Your task to perform on an android device: Play the latest video from the BBC Image 0: 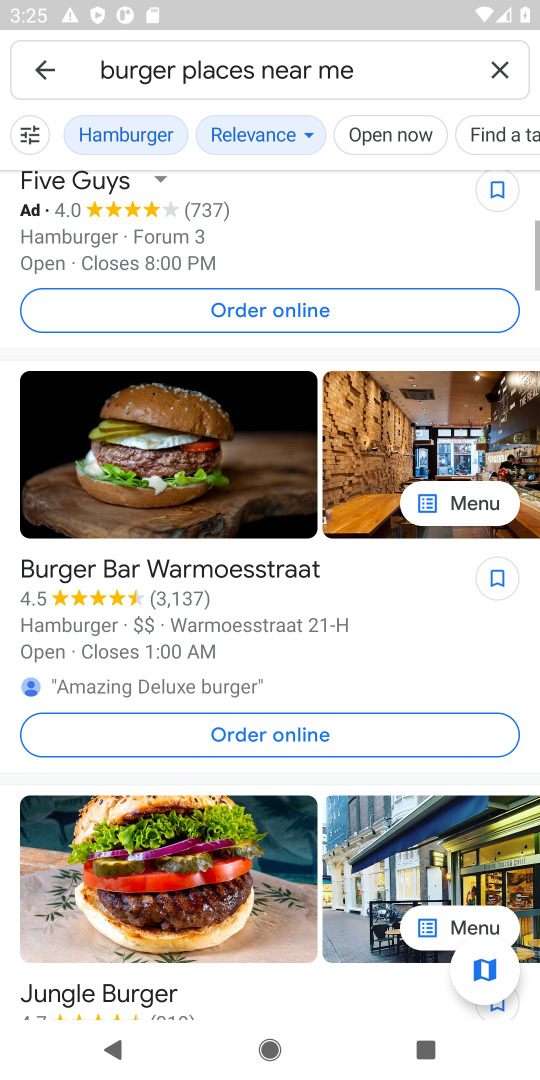
Step 0: press home button
Your task to perform on an android device: Play the latest video from the BBC Image 1: 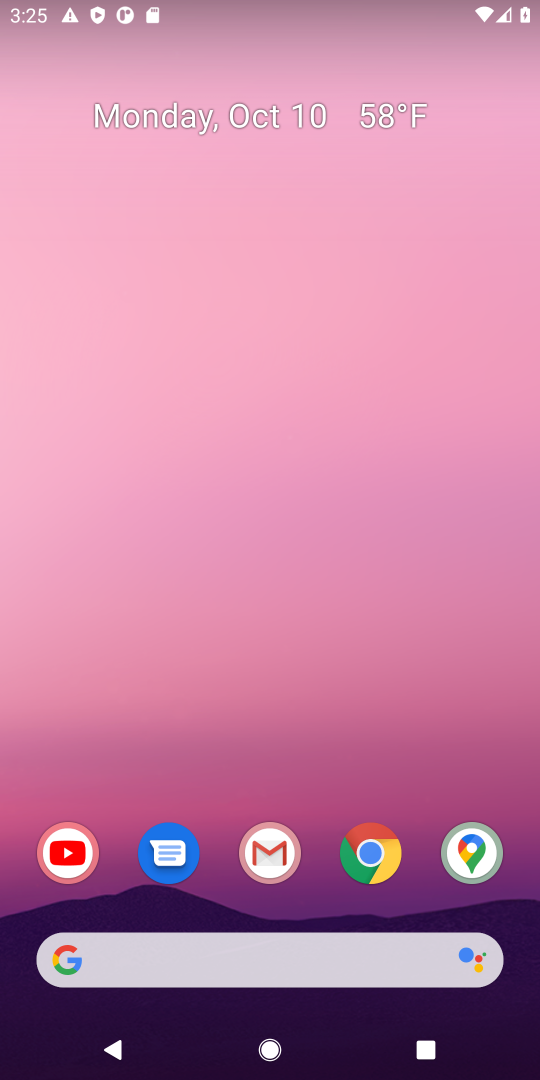
Step 1: click (52, 842)
Your task to perform on an android device: Play the latest video from the BBC Image 2: 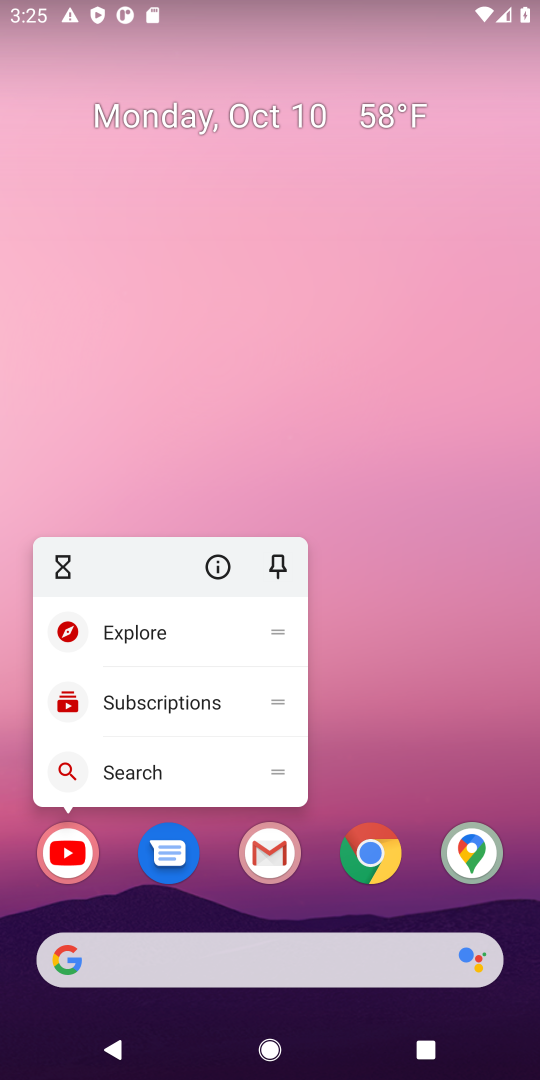
Step 2: click (66, 859)
Your task to perform on an android device: Play the latest video from the BBC Image 3: 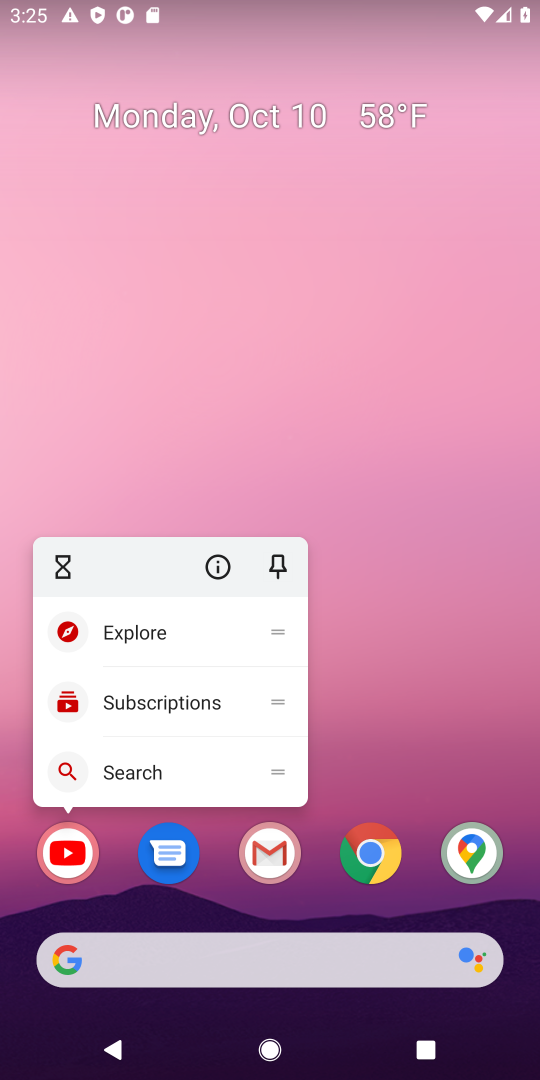
Step 3: click (95, 869)
Your task to perform on an android device: Play the latest video from the BBC Image 4: 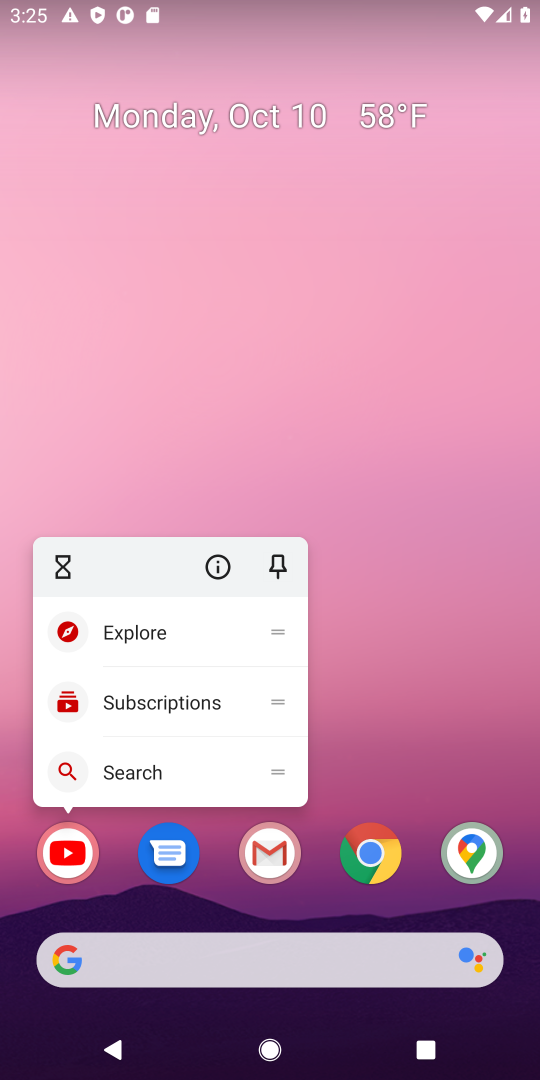
Step 4: click (60, 844)
Your task to perform on an android device: Play the latest video from the BBC Image 5: 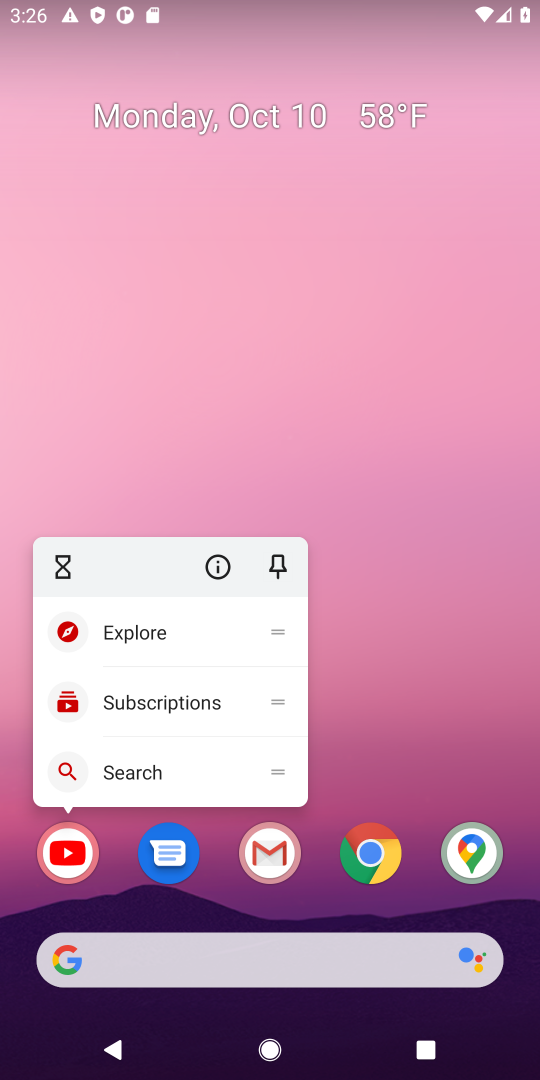
Step 5: click (70, 860)
Your task to perform on an android device: Play the latest video from the BBC Image 6: 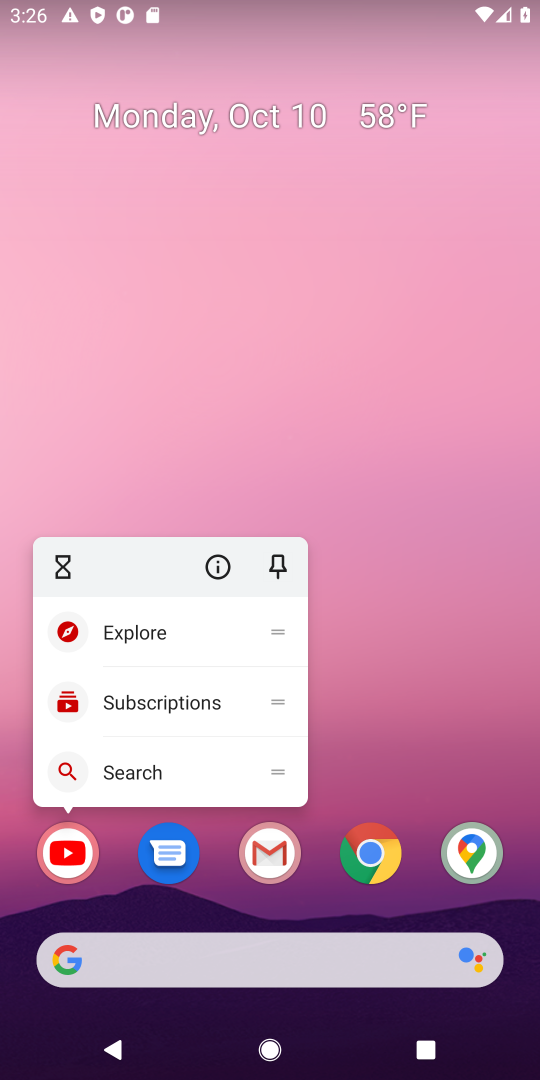
Step 6: click (70, 857)
Your task to perform on an android device: Play the latest video from the BBC Image 7: 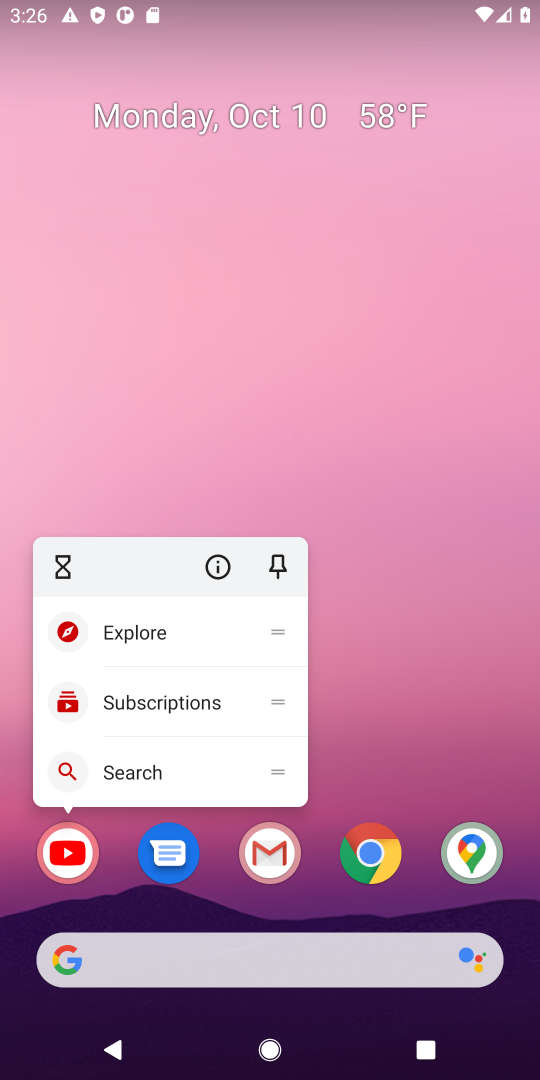
Step 7: click (70, 857)
Your task to perform on an android device: Play the latest video from the BBC Image 8: 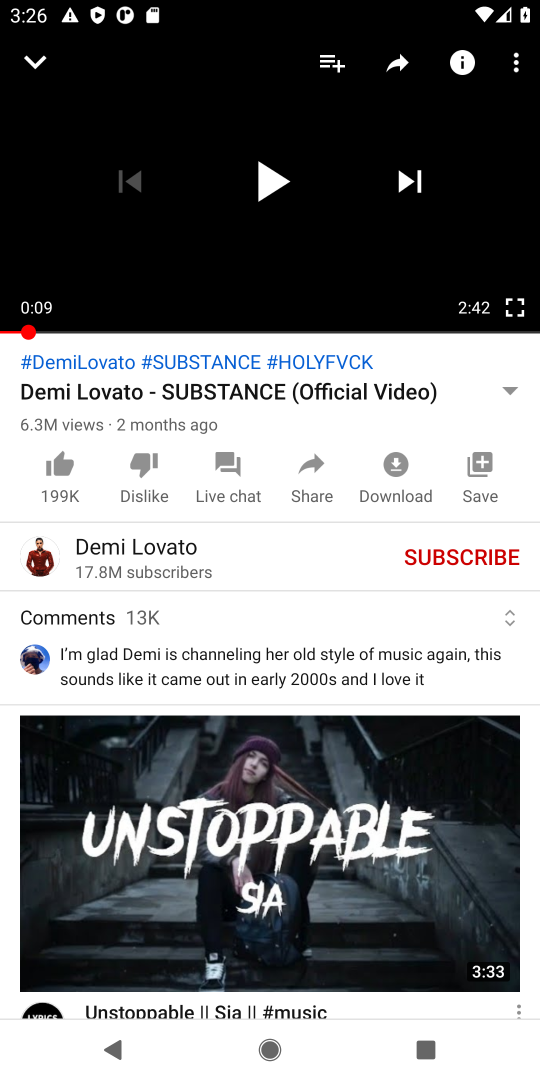
Step 8: click (37, 59)
Your task to perform on an android device: Play the latest video from the BBC Image 9: 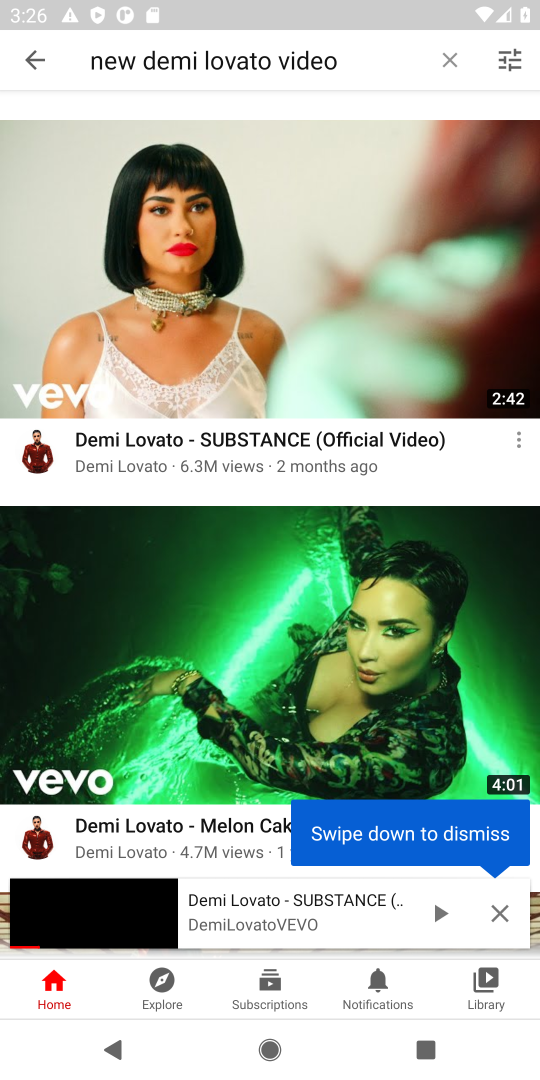
Step 9: click (428, 69)
Your task to perform on an android device: Play the latest video from the BBC Image 10: 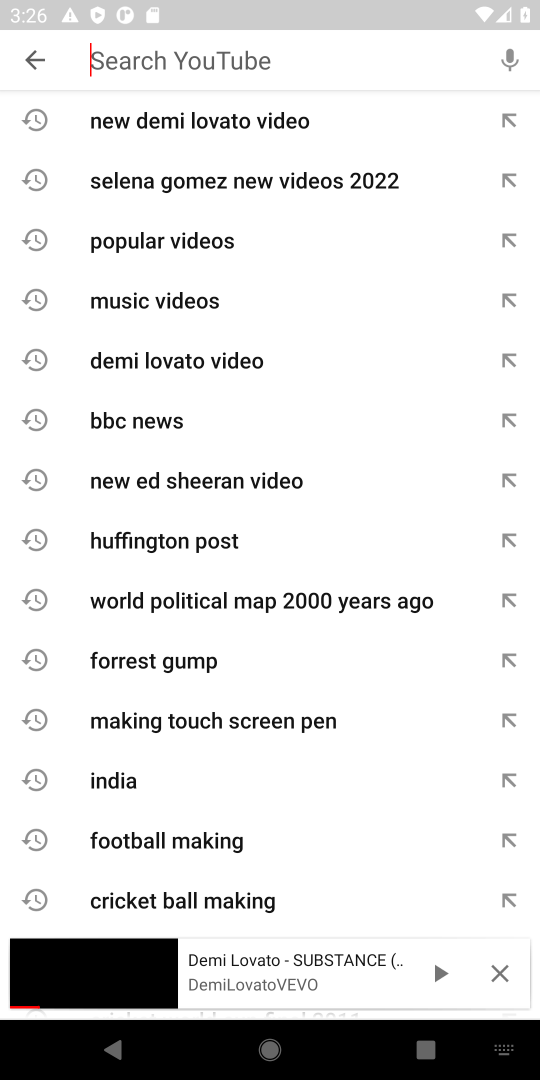
Step 10: click (197, 55)
Your task to perform on an android device: Play the latest video from the BBC Image 11: 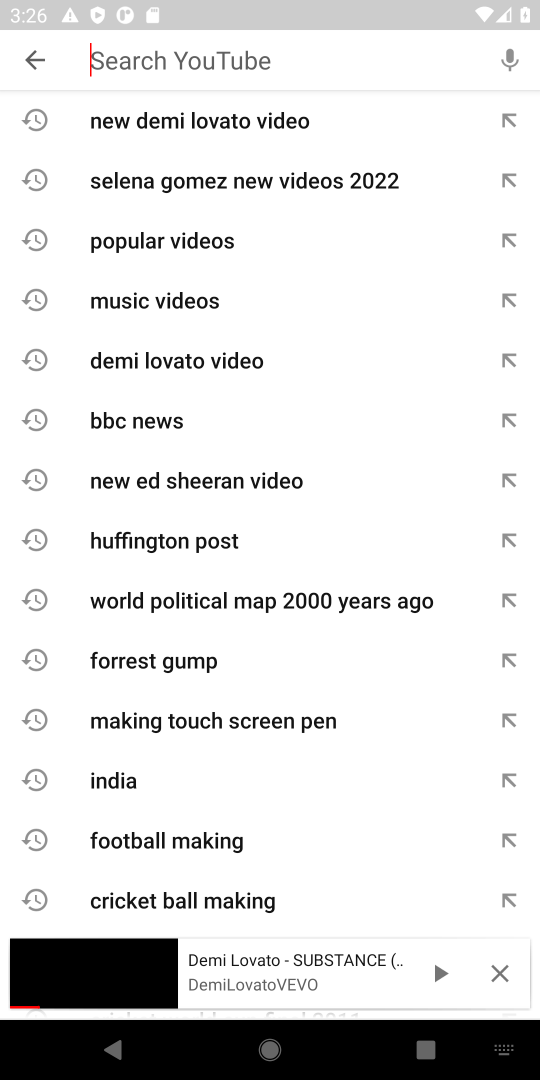
Step 11: type "latest video from the BBC"
Your task to perform on an android device: Play the latest video from the BBC Image 12: 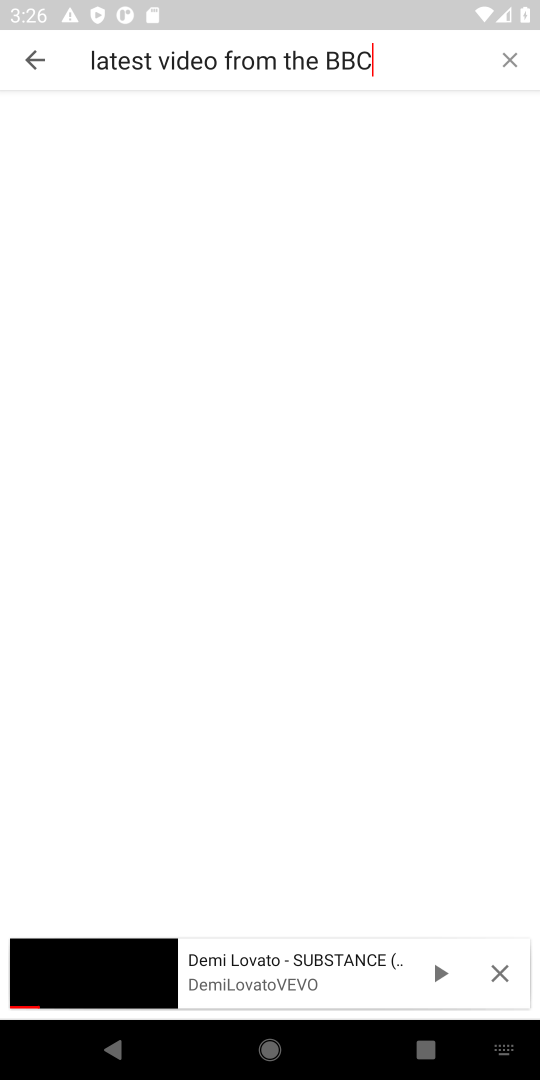
Step 12: click (523, 50)
Your task to perform on an android device: Play the latest video from the BBC Image 13: 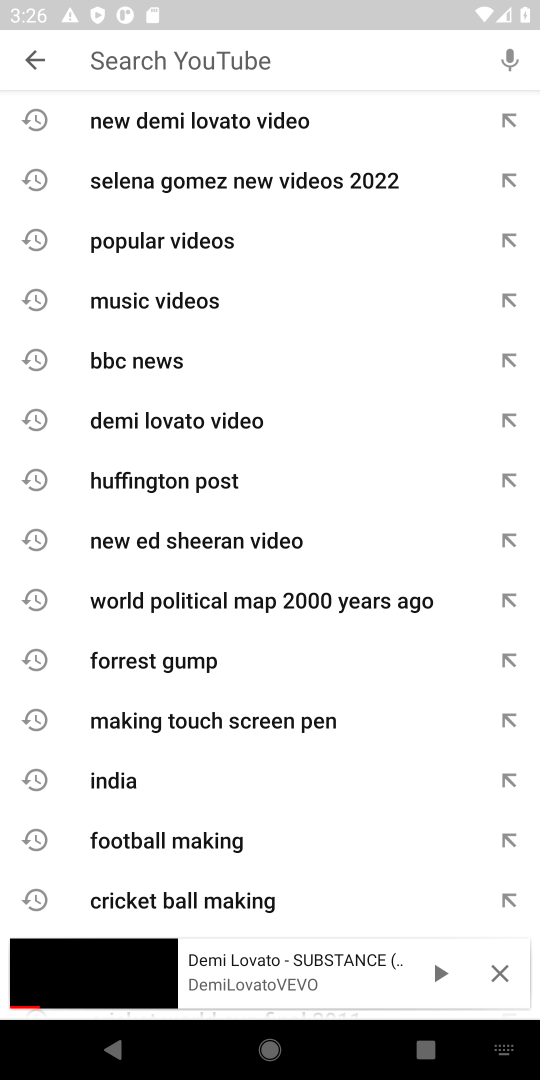
Step 13: type "bbc"
Your task to perform on an android device: Play the latest video from the BBC Image 14: 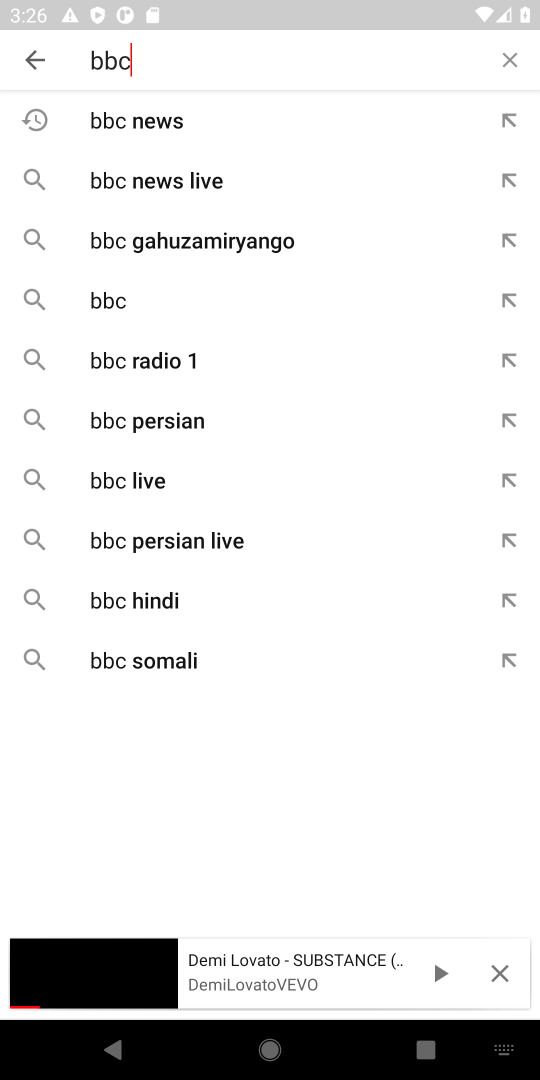
Step 14: click (153, 125)
Your task to perform on an android device: Play the latest video from the BBC Image 15: 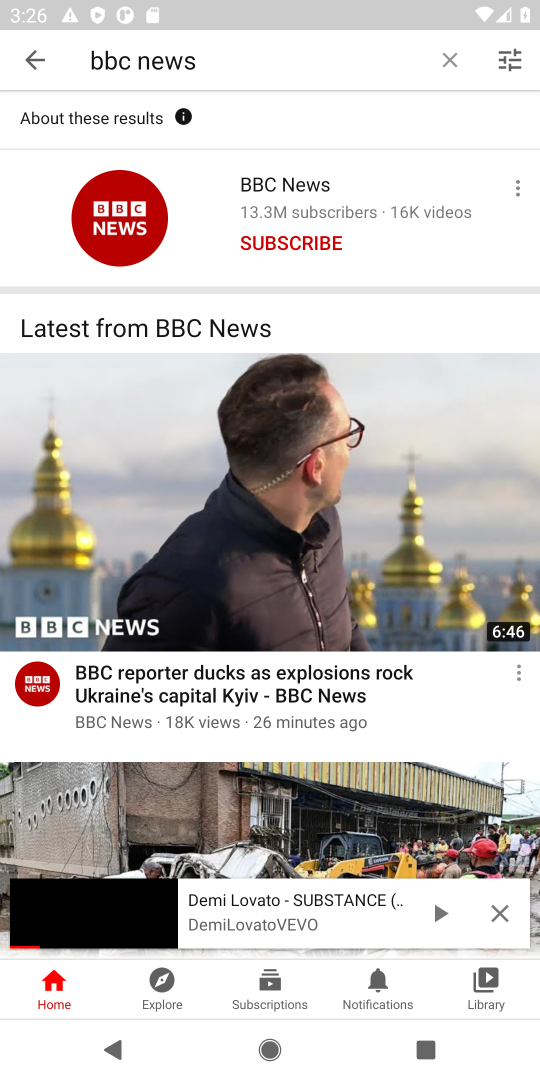
Step 15: click (238, 524)
Your task to perform on an android device: Play the latest video from the BBC Image 16: 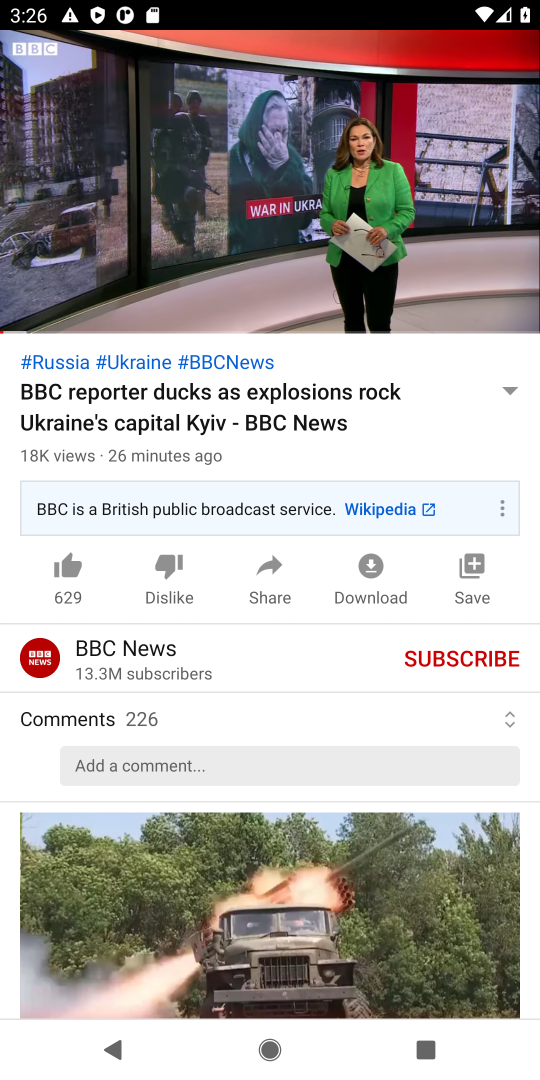
Step 16: task complete